Your task to perform on an android device: What is the news today? Image 0: 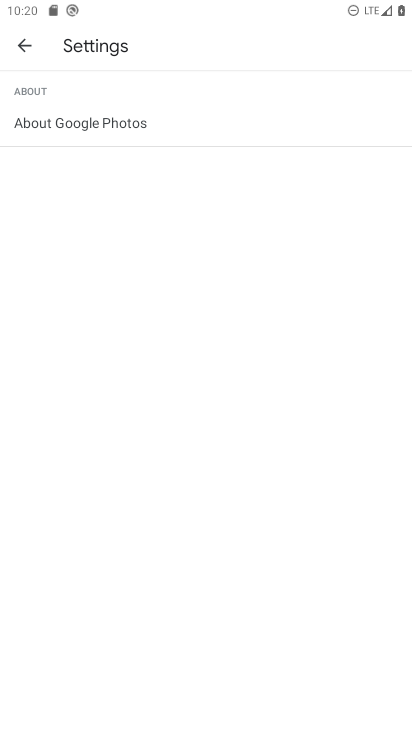
Step 0: press home button
Your task to perform on an android device: What is the news today? Image 1: 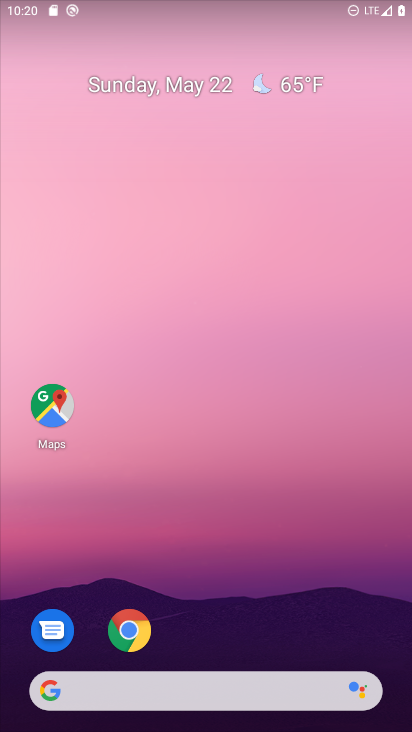
Step 1: click (52, 695)
Your task to perform on an android device: What is the news today? Image 2: 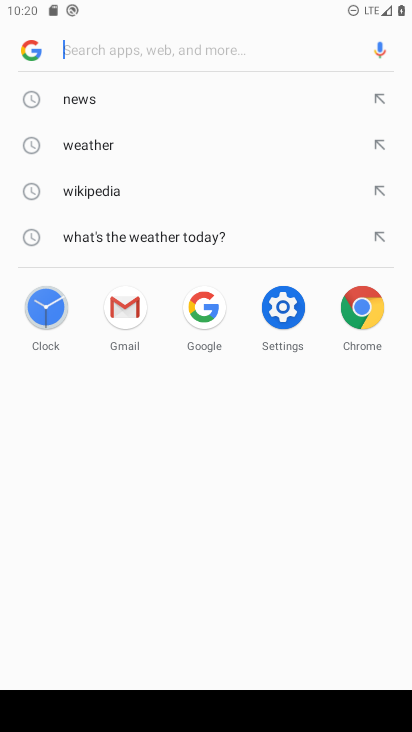
Step 2: click (87, 102)
Your task to perform on an android device: What is the news today? Image 3: 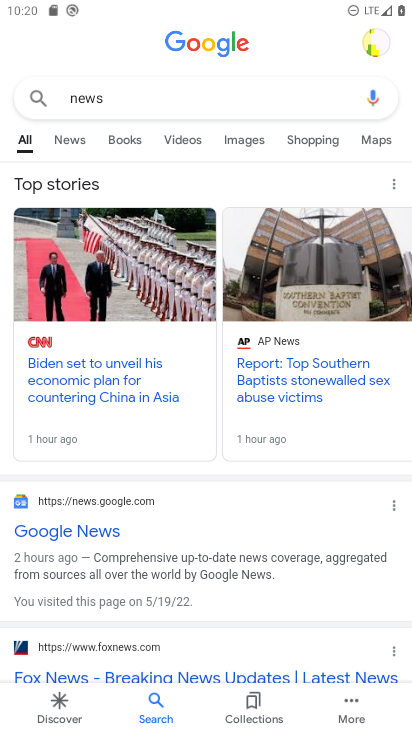
Step 3: click (52, 142)
Your task to perform on an android device: What is the news today? Image 4: 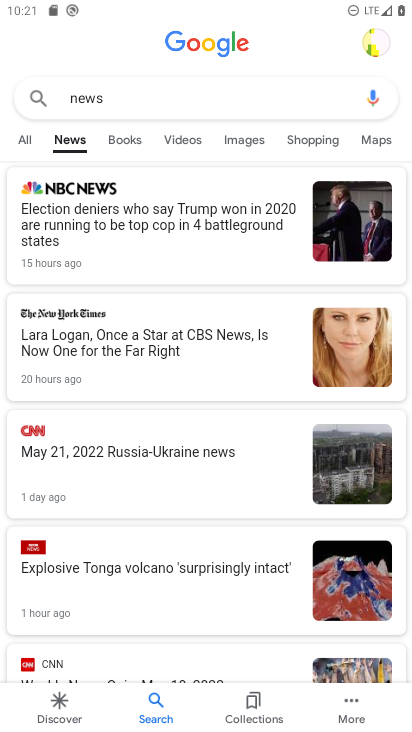
Step 4: task complete